Your task to perform on an android device: What's the weather like in Rio de Janeiro? Image 0: 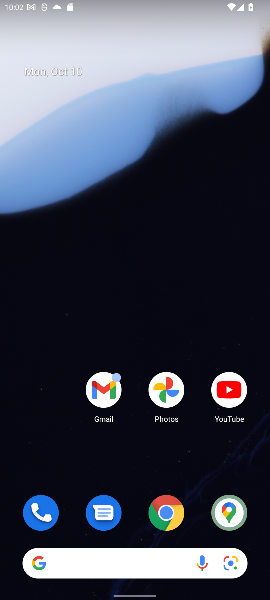
Step 0: click (107, 554)
Your task to perform on an android device: What's the weather like in Rio de Janeiro? Image 1: 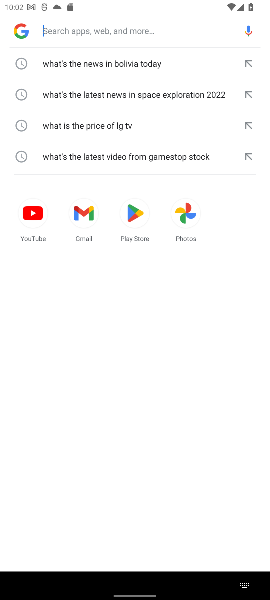
Step 1: type "What's the weather like in Rio de Janeiro?"
Your task to perform on an android device: What's the weather like in Rio de Janeiro? Image 2: 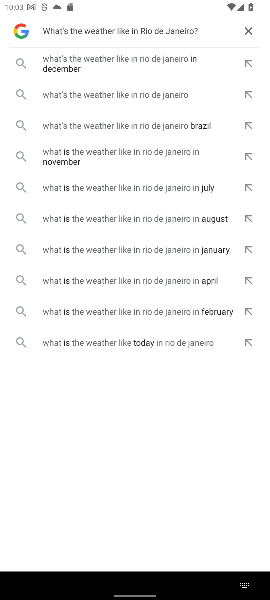
Step 2: click (96, 94)
Your task to perform on an android device: What's the weather like in Rio de Janeiro? Image 3: 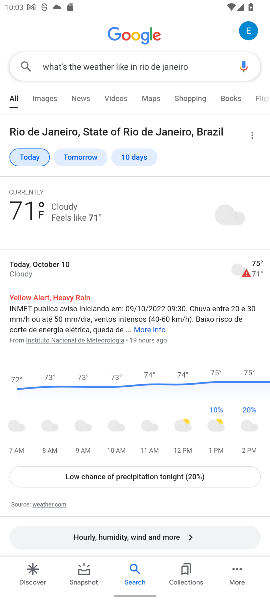
Step 3: task complete